Your task to perform on an android device: delete browsing data in the chrome app Image 0: 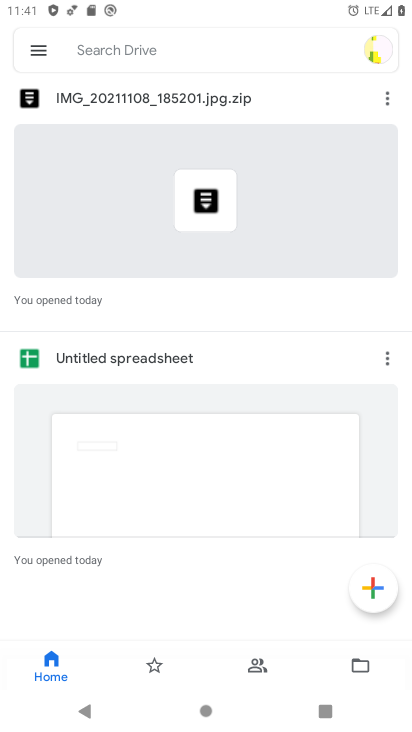
Step 0: press home button
Your task to perform on an android device: delete browsing data in the chrome app Image 1: 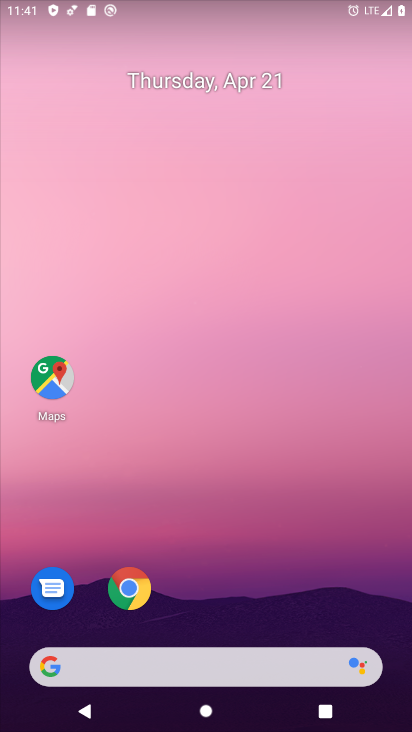
Step 1: drag from (217, 691) to (317, 0)
Your task to perform on an android device: delete browsing data in the chrome app Image 2: 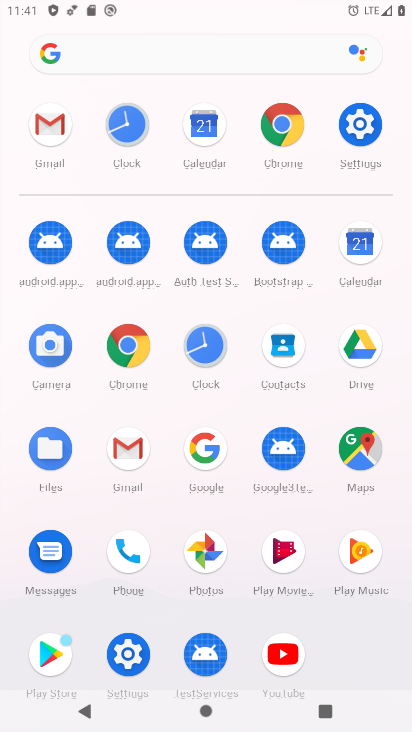
Step 2: click (278, 119)
Your task to perform on an android device: delete browsing data in the chrome app Image 3: 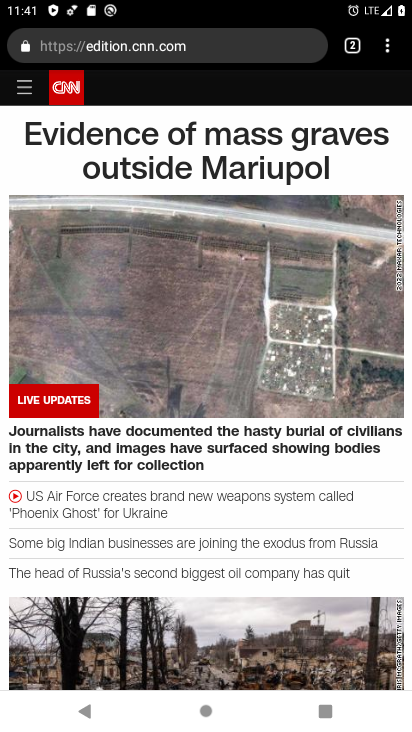
Step 3: click (389, 46)
Your task to perform on an android device: delete browsing data in the chrome app Image 4: 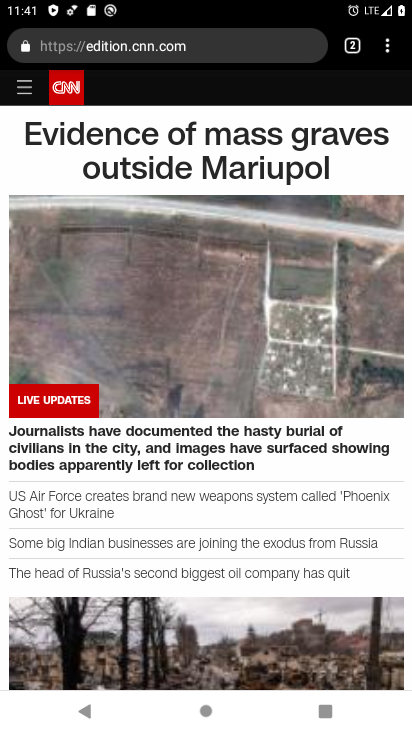
Step 4: click (385, 50)
Your task to perform on an android device: delete browsing data in the chrome app Image 5: 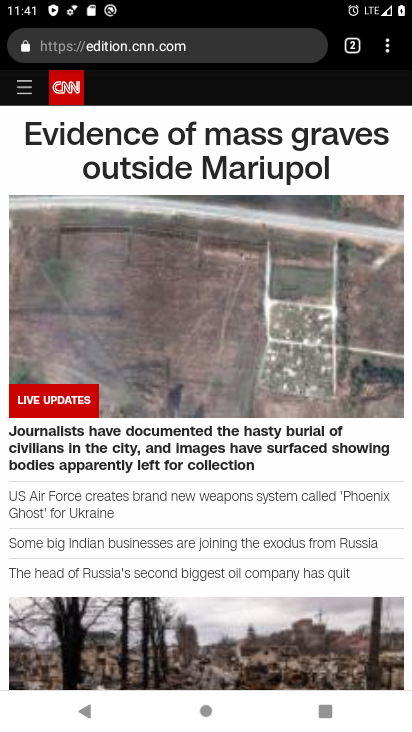
Step 5: click (388, 61)
Your task to perform on an android device: delete browsing data in the chrome app Image 6: 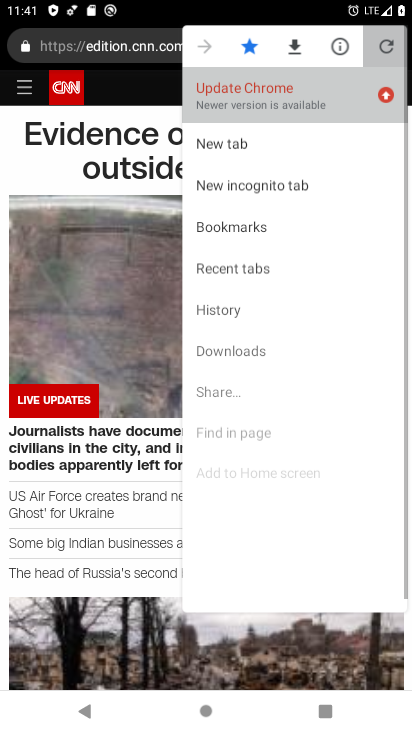
Step 6: click (392, 53)
Your task to perform on an android device: delete browsing data in the chrome app Image 7: 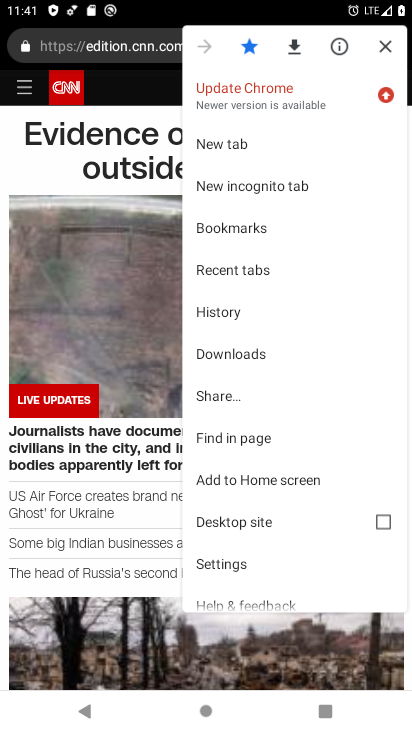
Step 7: drag from (392, 53) to (255, 240)
Your task to perform on an android device: delete browsing data in the chrome app Image 8: 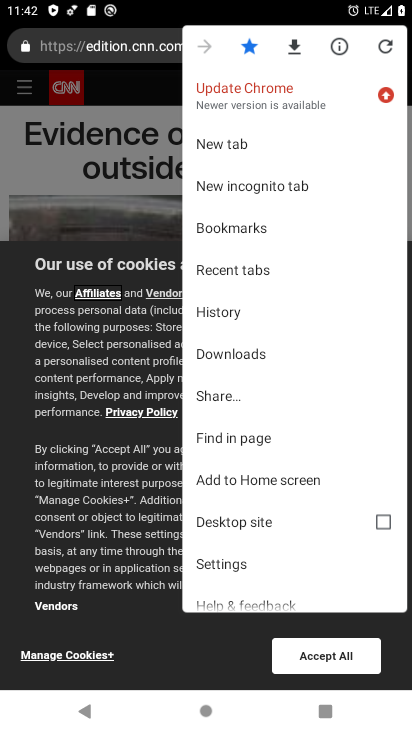
Step 8: drag from (282, 547) to (271, 499)
Your task to perform on an android device: delete browsing data in the chrome app Image 9: 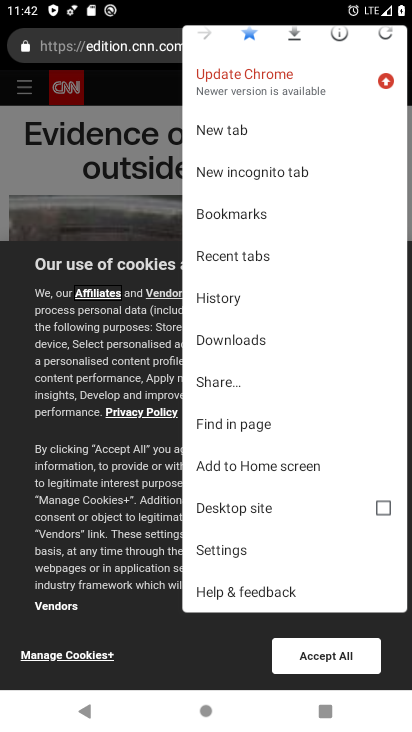
Step 9: click (246, 554)
Your task to perform on an android device: delete browsing data in the chrome app Image 10: 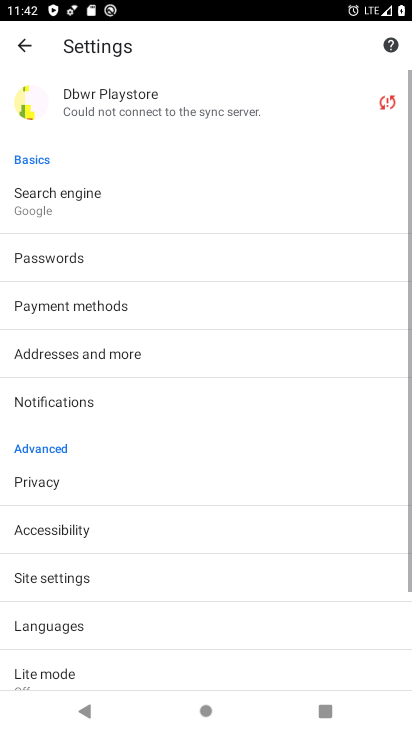
Step 10: drag from (223, 614) to (326, 301)
Your task to perform on an android device: delete browsing data in the chrome app Image 11: 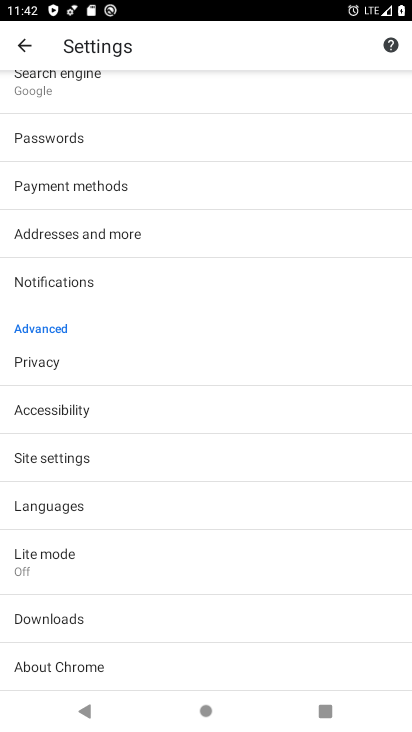
Step 11: drag from (109, 618) to (200, 459)
Your task to perform on an android device: delete browsing data in the chrome app Image 12: 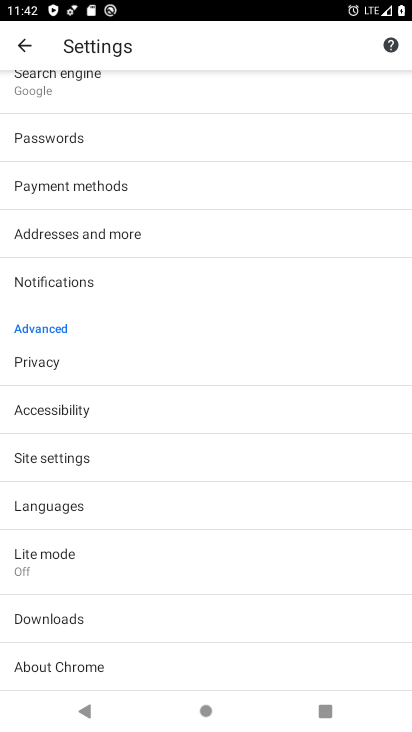
Step 12: click (93, 379)
Your task to perform on an android device: delete browsing data in the chrome app Image 13: 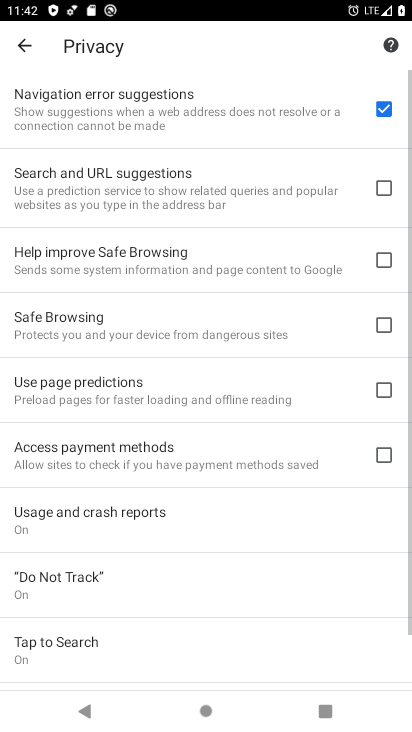
Step 13: drag from (152, 648) to (239, 292)
Your task to perform on an android device: delete browsing data in the chrome app Image 14: 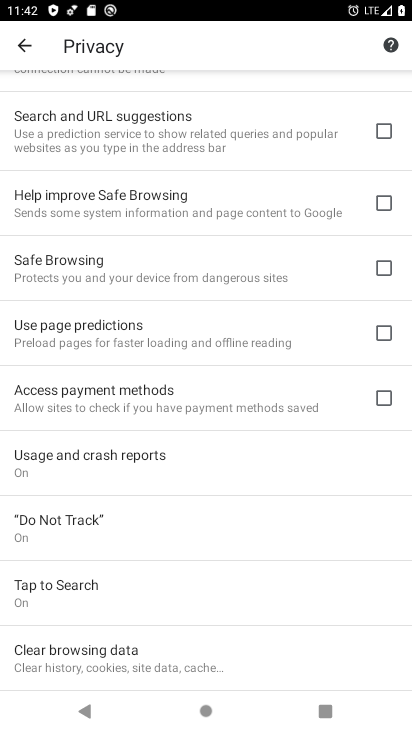
Step 14: click (123, 659)
Your task to perform on an android device: delete browsing data in the chrome app Image 15: 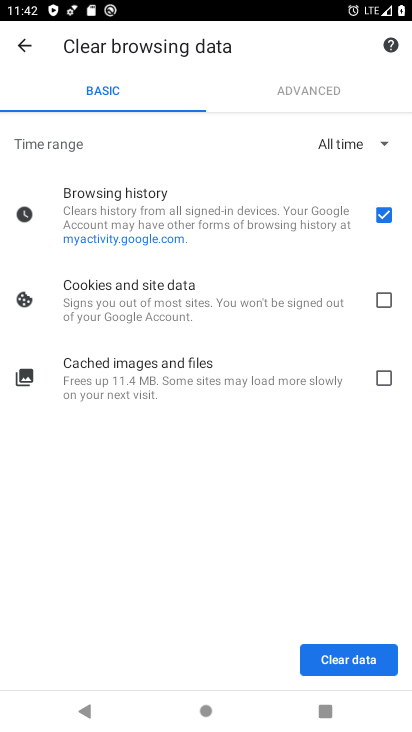
Step 15: click (346, 661)
Your task to perform on an android device: delete browsing data in the chrome app Image 16: 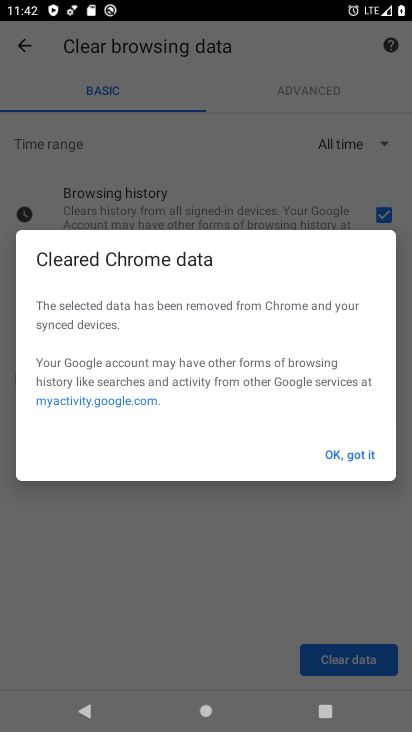
Step 16: task complete